Your task to perform on an android device: delete the emails in spam in the gmail app Image 0: 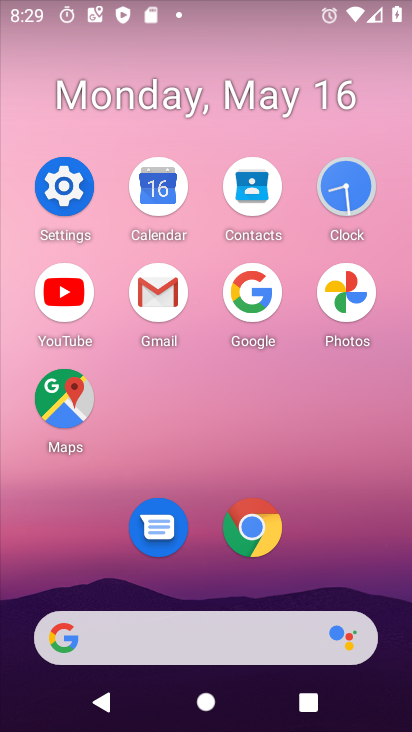
Step 0: click (159, 295)
Your task to perform on an android device: delete the emails in spam in the gmail app Image 1: 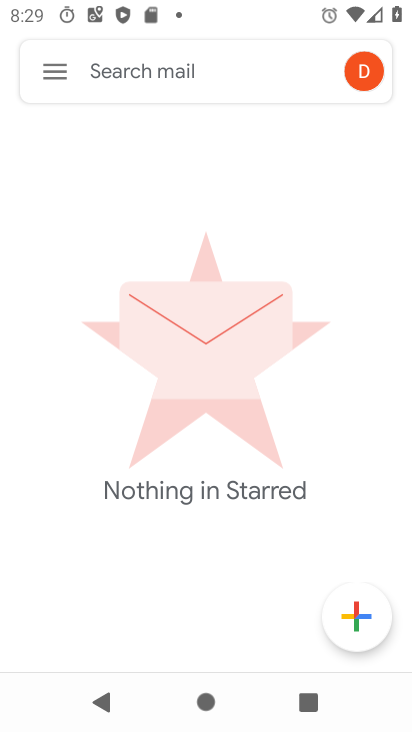
Step 1: click (65, 84)
Your task to perform on an android device: delete the emails in spam in the gmail app Image 2: 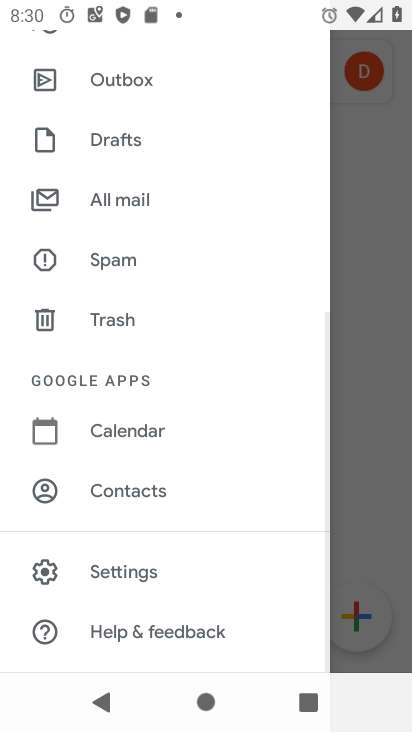
Step 2: click (113, 269)
Your task to perform on an android device: delete the emails in spam in the gmail app Image 3: 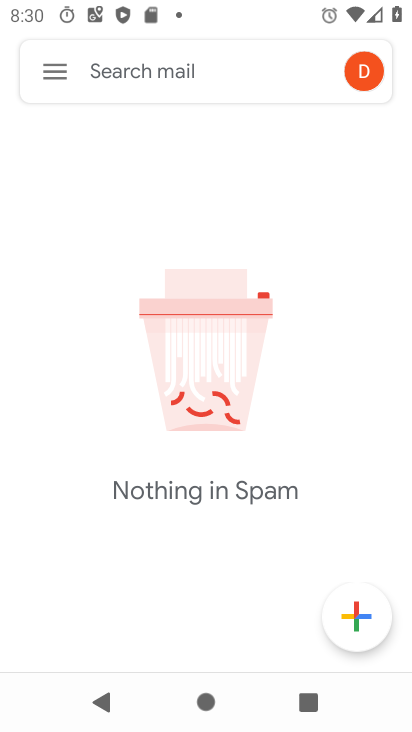
Step 3: task complete